Your task to perform on an android device: Open the map Image 0: 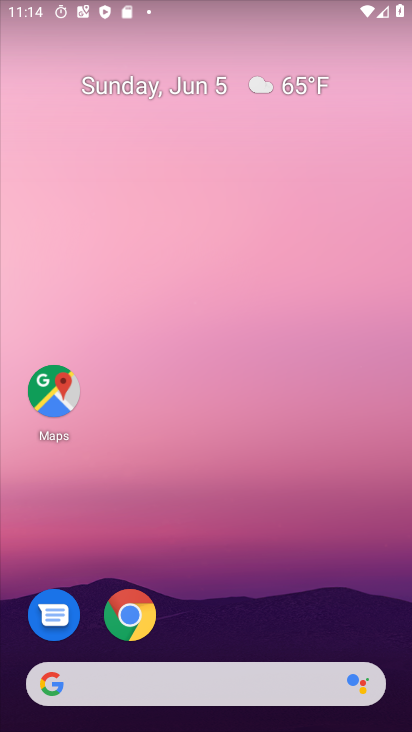
Step 0: click (41, 404)
Your task to perform on an android device: Open the map Image 1: 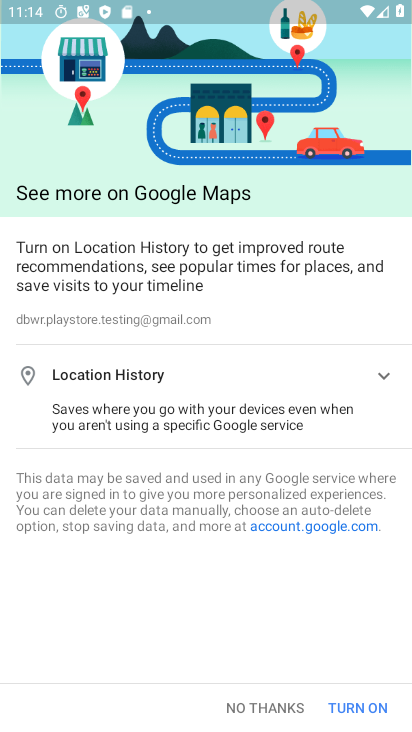
Step 1: click (277, 714)
Your task to perform on an android device: Open the map Image 2: 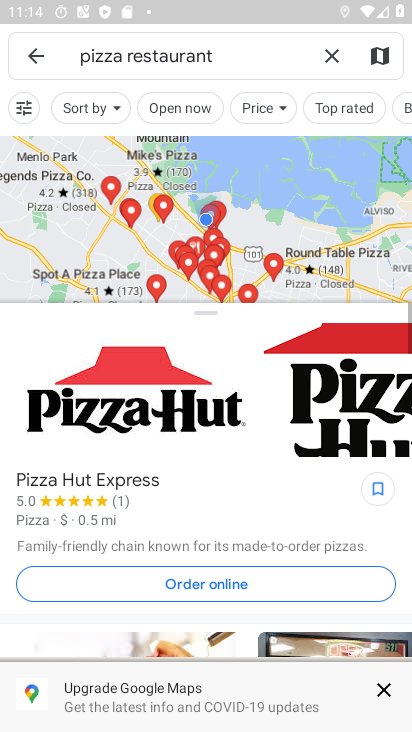
Step 2: click (377, 691)
Your task to perform on an android device: Open the map Image 3: 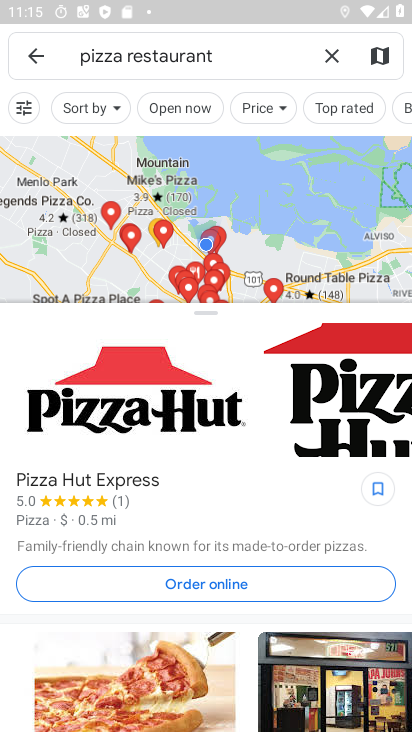
Step 3: task complete